Your task to perform on an android device: Go to privacy settings Image 0: 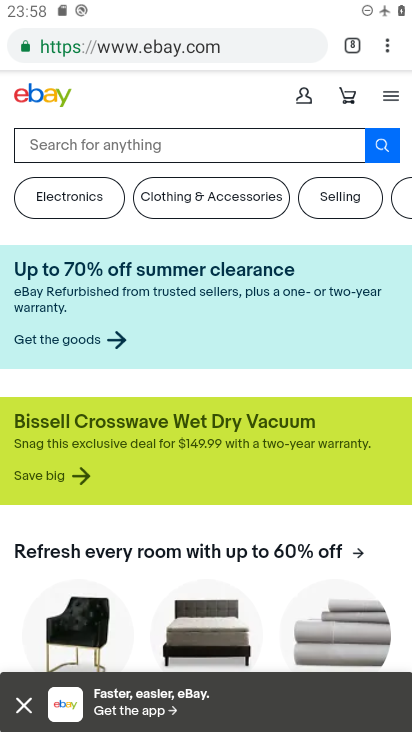
Step 0: press home button
Your task to perform on an android device: Go to privacy settings Image 1: 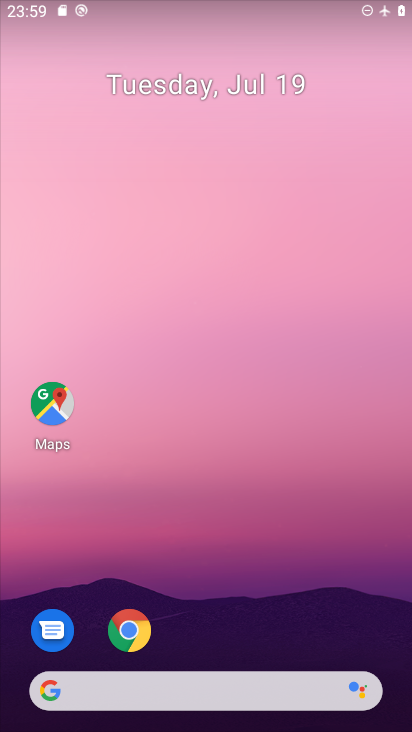
Step 1: drag from (226, 603) to (210, 159)
Your task to perform on an android device: Go to privacy settings Image 2: 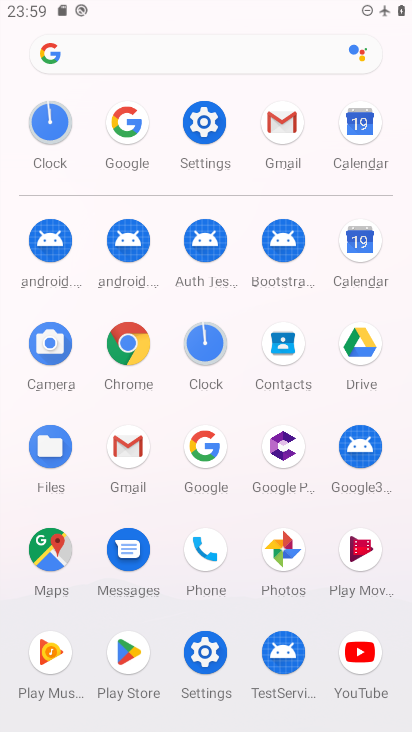
Step 2: click (184, 126)
Your task to perform on an android device: Go to privacy settings Image 3: 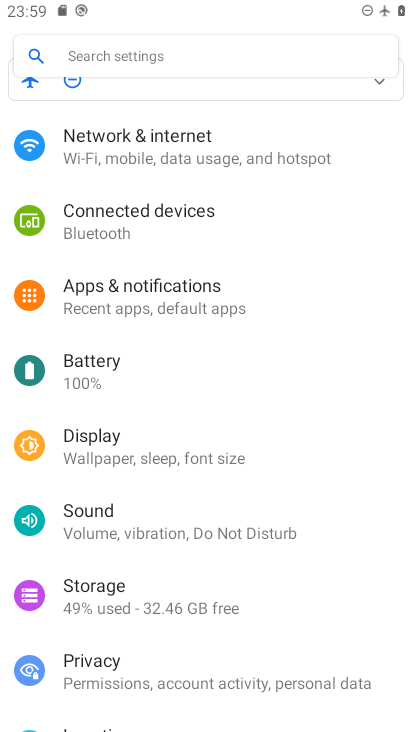
Step 3: click (126, 654)
Your task to perform on an android device: Go to privacy settings Image 4: 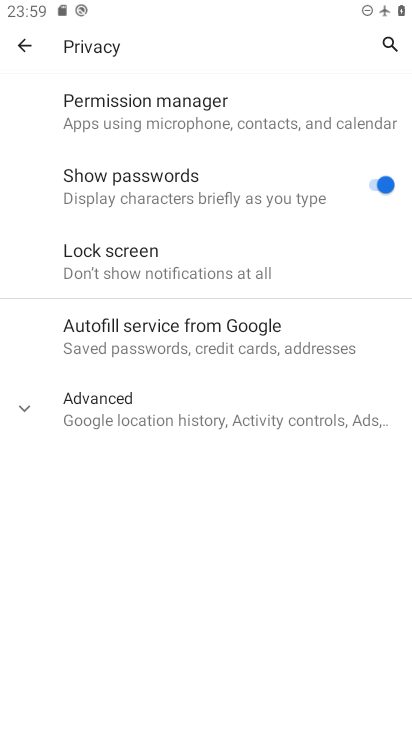
Step 4: task complete